Your task to perform on an android device: Search for "apple airpods pro" on amazon, select the first entry, add it to the cart, then select checkout. Image 0: 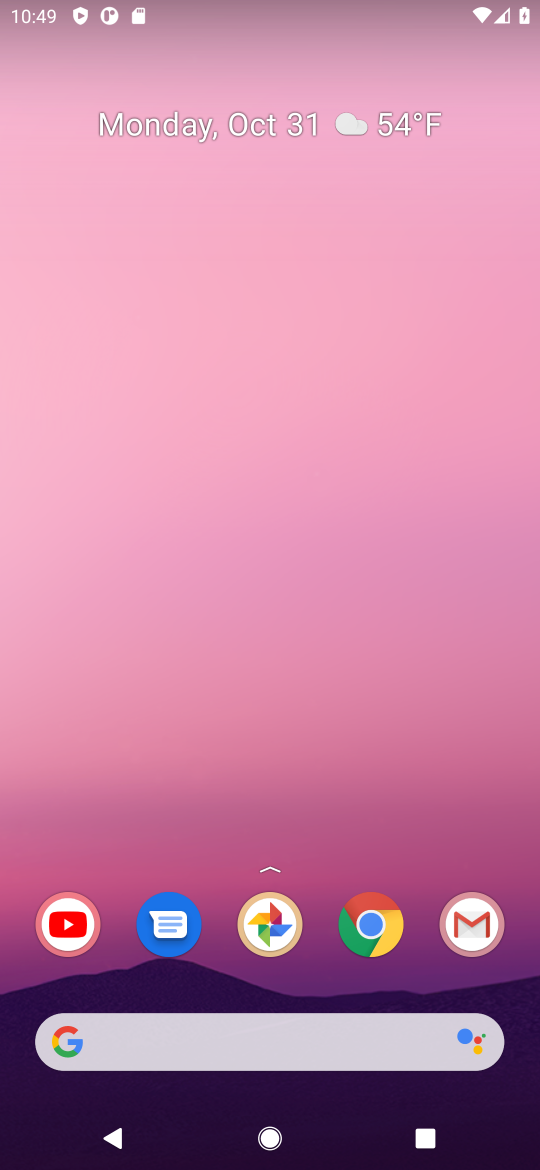
Step 0: click (383, 945)
Your task to perform on an android device: Search for "apple airpods pro" on amazon, select the first entry, add it to the cart, then select checkout. Image 1: 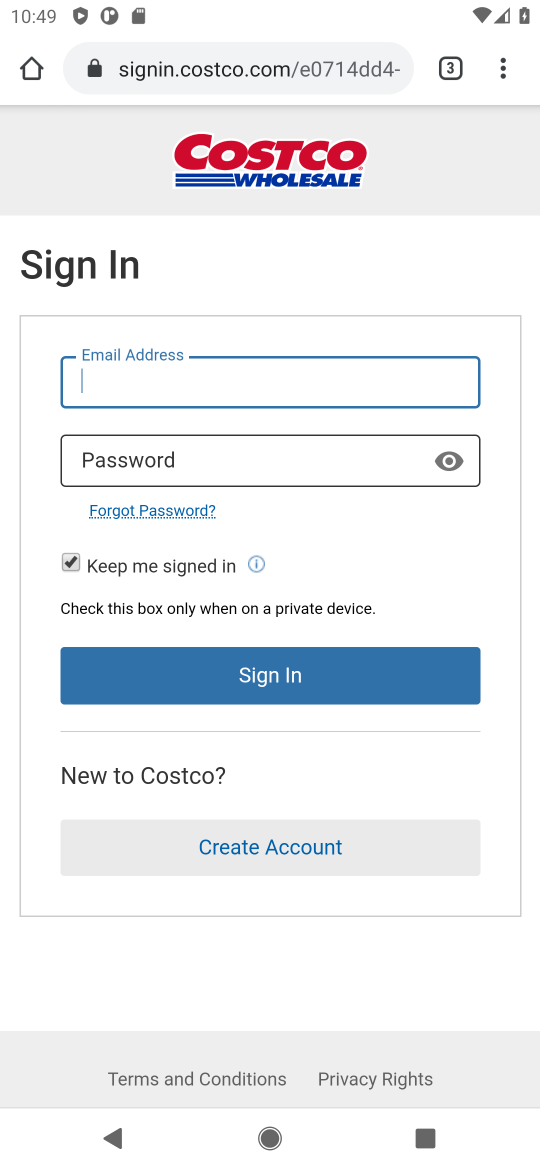
Step 1: click (282, 64)
Your task to perform on an android device: Search for "apple airpods pro" on amazon, select the first entry, add it to the cart, then select checkout. Image 2: 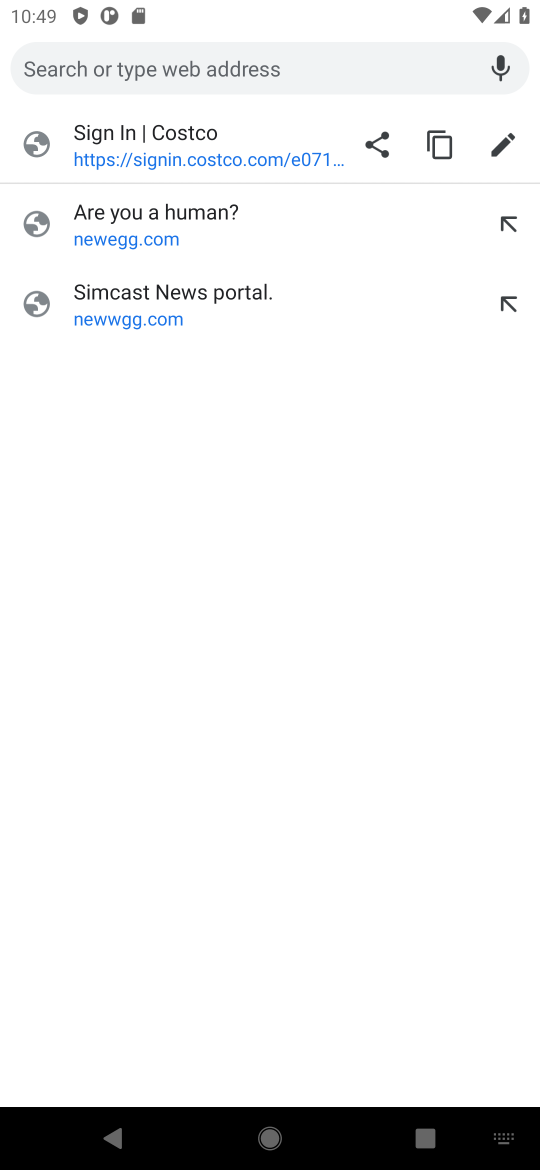
Step 2: type "amazone.com"
Your task to perform on an android device: Search for "apple airpods pro" on amazon, select the first entry, add it to the cart, then select checkout. Image 3: 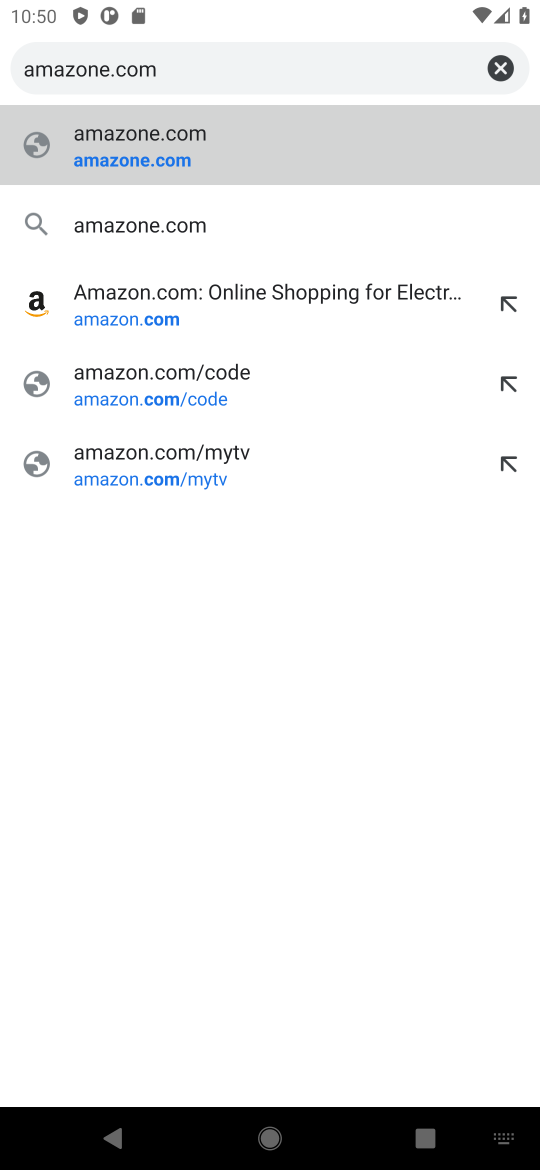
Step 3: click (142, 171)
Your task to perform on an android device: Search for "apple airpods pro" on amazon, select the first entry, add it to the cart, then select checkout. Image 4: 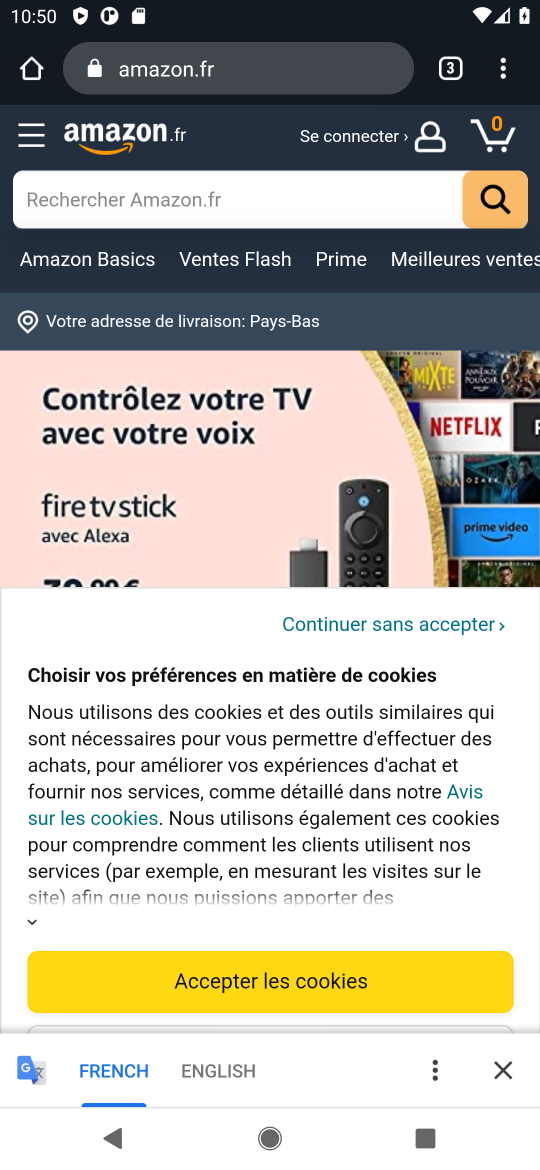
Step 4: click (244, 985)
Your task to perform on an android device: Search for "apple airpods pro" on amazon, select the first entry, add it to the cart, then select checkout. Image 5: 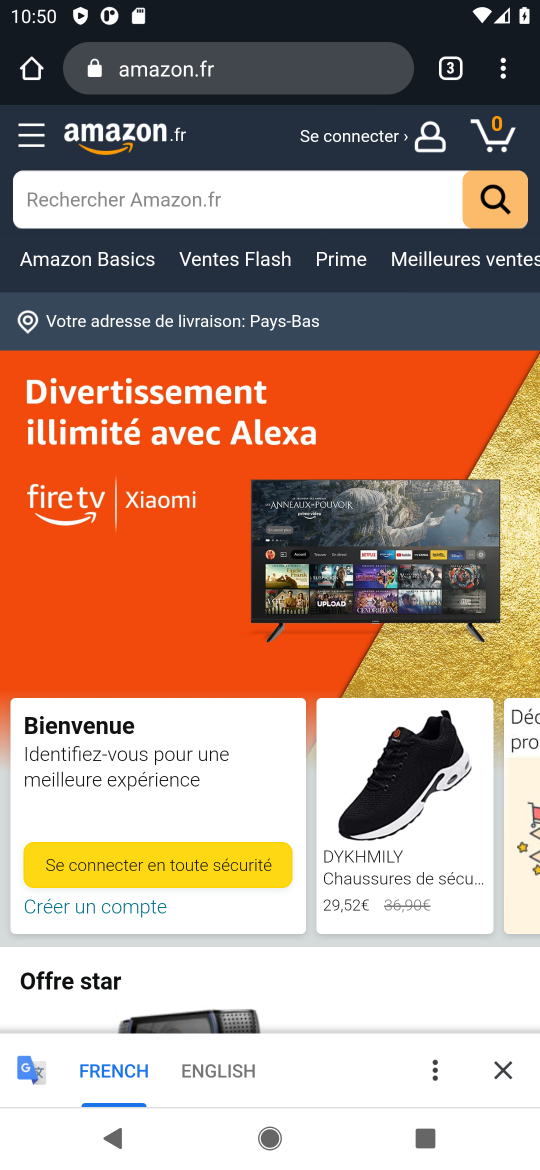
Step 5: click (196, 192)
Your task to perform on an android device: Search for "apple airpods pro" on amazon, select the first entry, add it to the cart, then select checkout. Image 6: 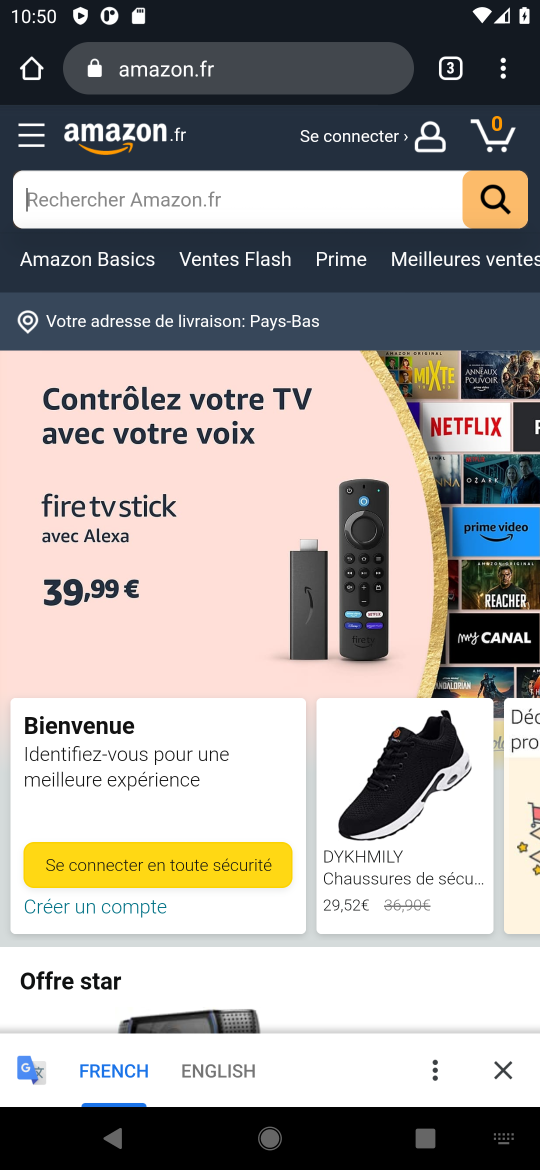
Step 6: type "apple airpods pro"
Your task to perform on an android device: Search for "apple airpods pro" on amazon, select the first entry, add it to the cart, then select checkout. Image 7: 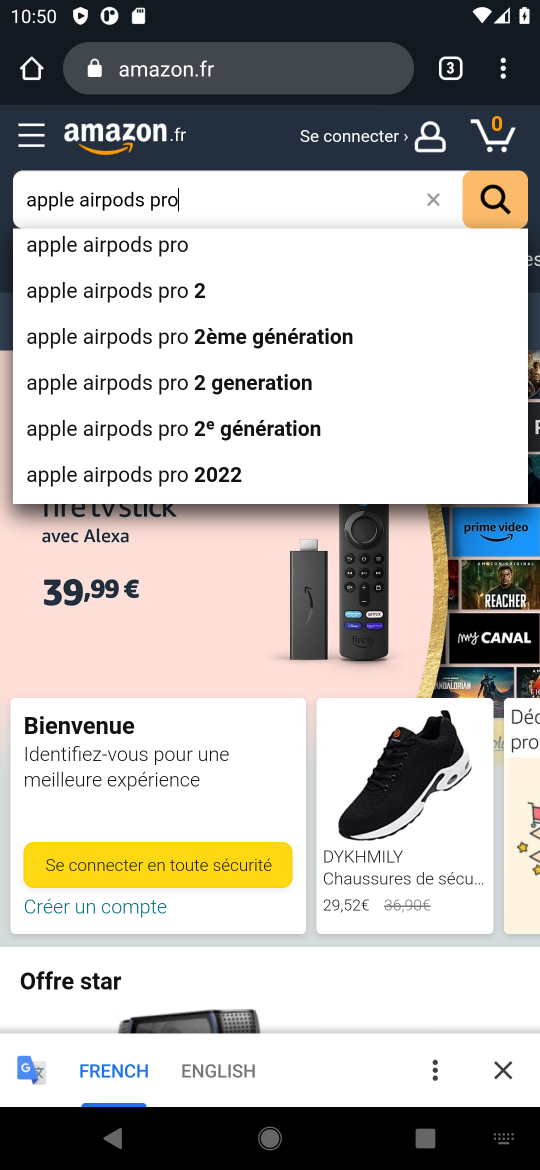
Step 7: type ""
Your task to perform on an android device: Search for "apple airpods pro" on amazon, select the first entry, add it to the cart, then select checkout. Image 8: 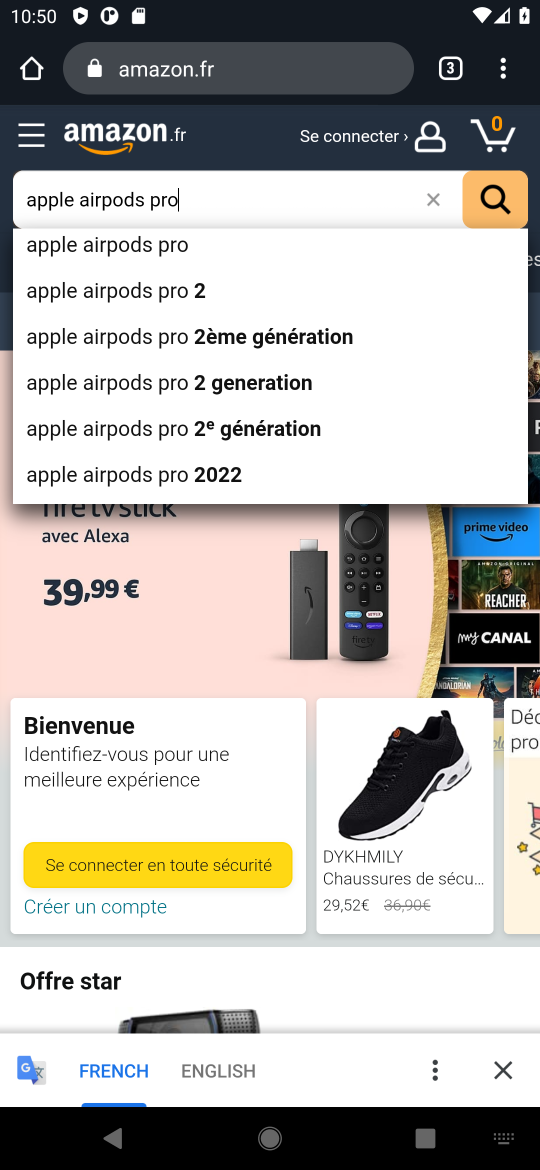
Step 8: click (89, 246)
Your task to perform on an android device: Search for "apple airpods pro" on amazon, select the first entry, add it to the cart, then select checkout. Image 9: 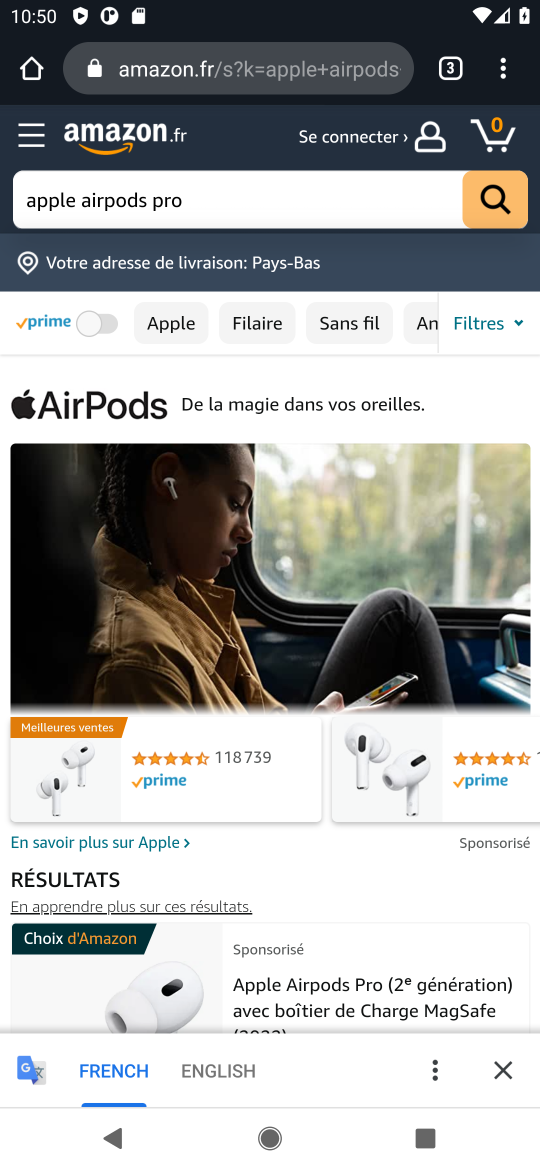
Step 9: drag from (150, 808) to (193, 425)
Your task to perform on an android device: Search for "apple airpods pro" on amazon, select the first entry, add it to the cart, then select checkout. Image 10: 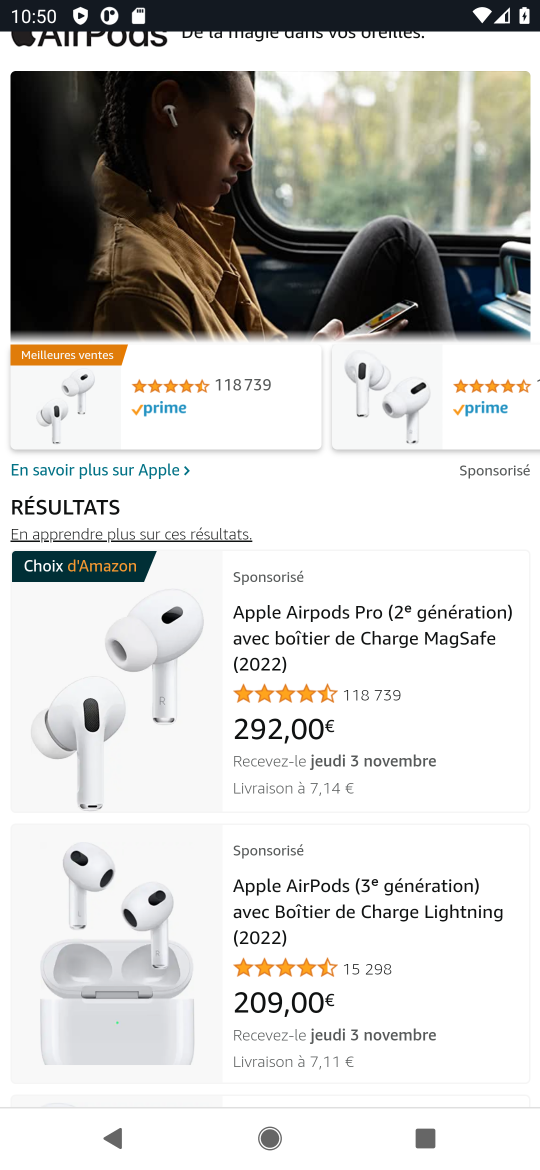
Step 10: click (210, 635)
Your task to perform on an android device: Search for "apple airpods pro" on amazon, select the first entry, add it to the cart, then select checkout. Image 11: 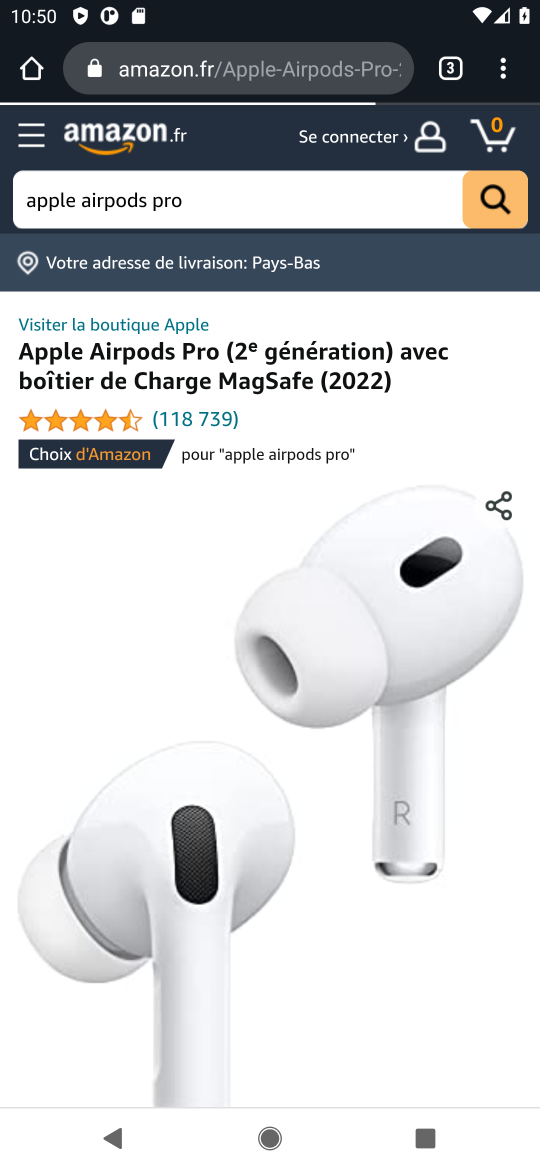
Step 11: drag from (266, 762) to (358, 270)
Your task to perform on an android device: Search for "apple airpods pro" on amazon, select the first entry, add it to the cart, then select checkout. Image 12: 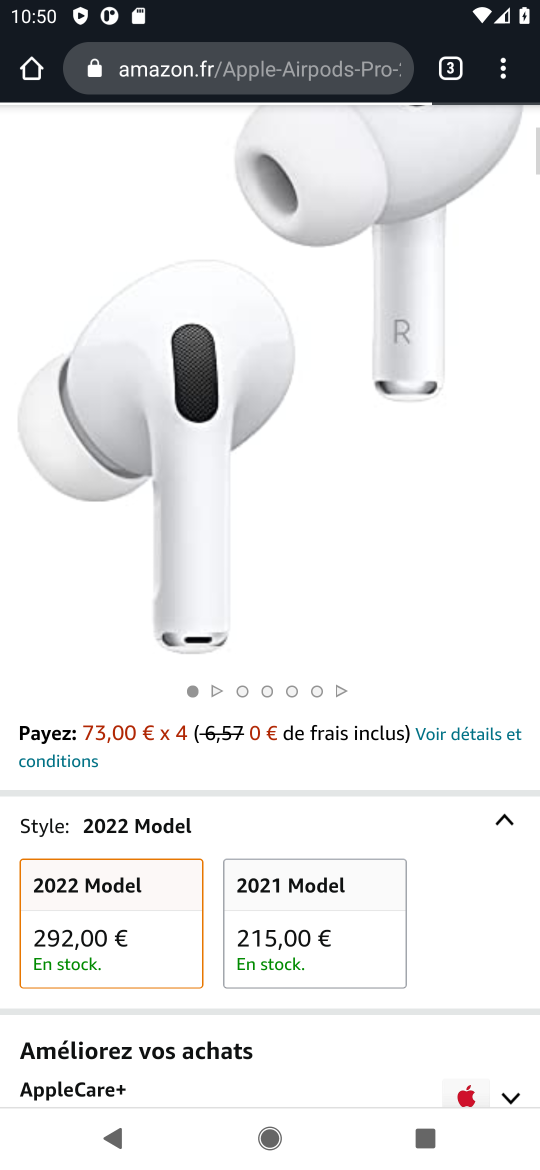
Step 12: drag from (279, 738) to (347, 345)
Your task to perform on an android device: Search for "apple airpods pro" on amazon, select the first entry, add it to the cart, then select checkout. Image 13: 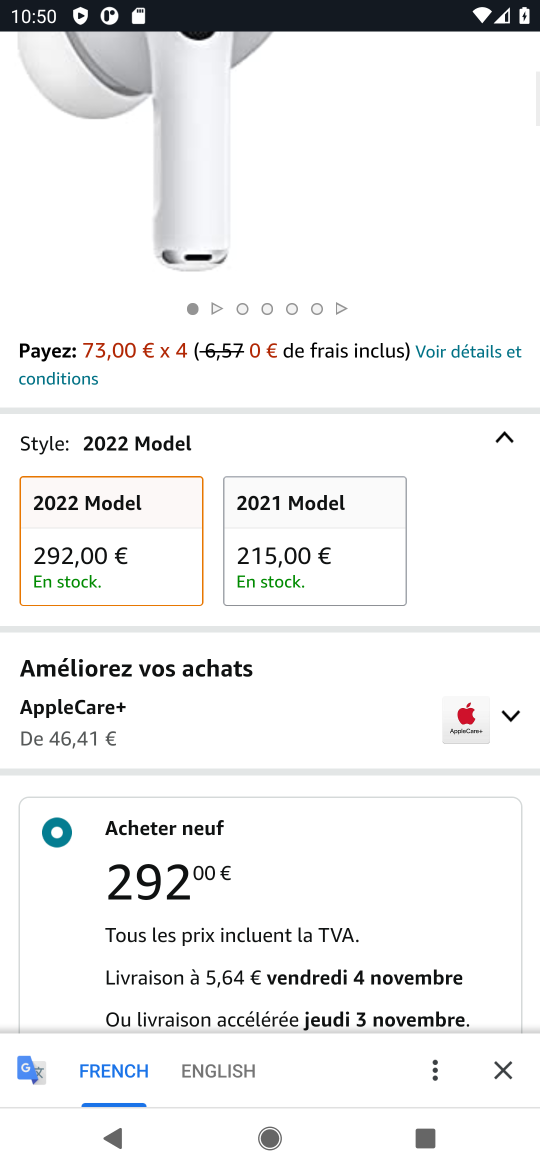
Step 13: drag from (282, 840) to (386, 225)
Your task to perform on an android device: Search for "apple airpods pro" on amazon, select the first entry, add it to the cart, then select checkout. Image 14: 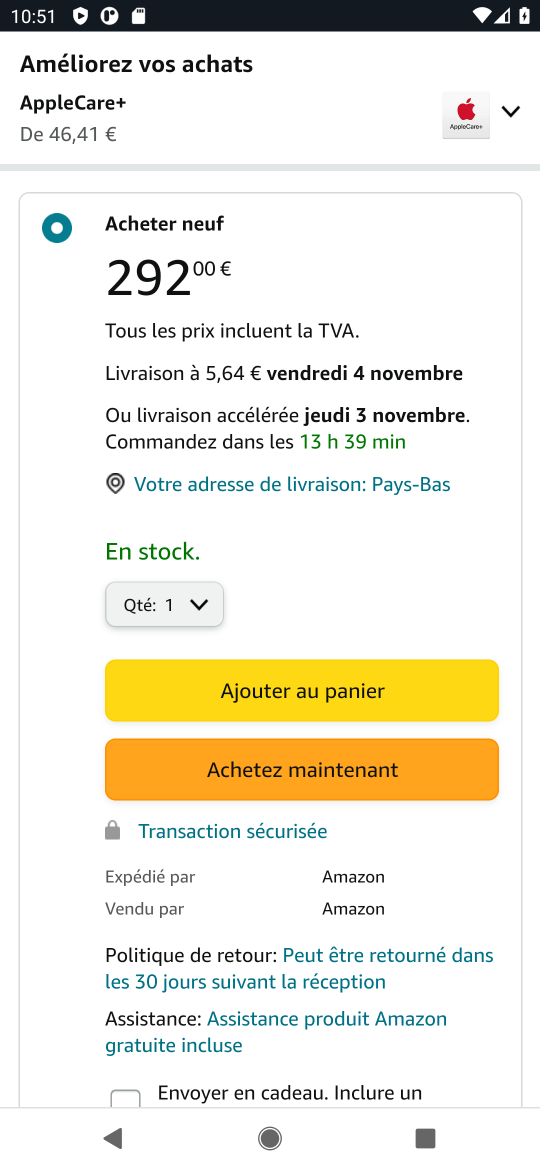
Step 14: drag from (307, 935) to (382, 542)
Your task to perform on an android device: Search for "apple airpods pro" on amazon, select the first entry, add it to the cart, then select checkout. Image 15: 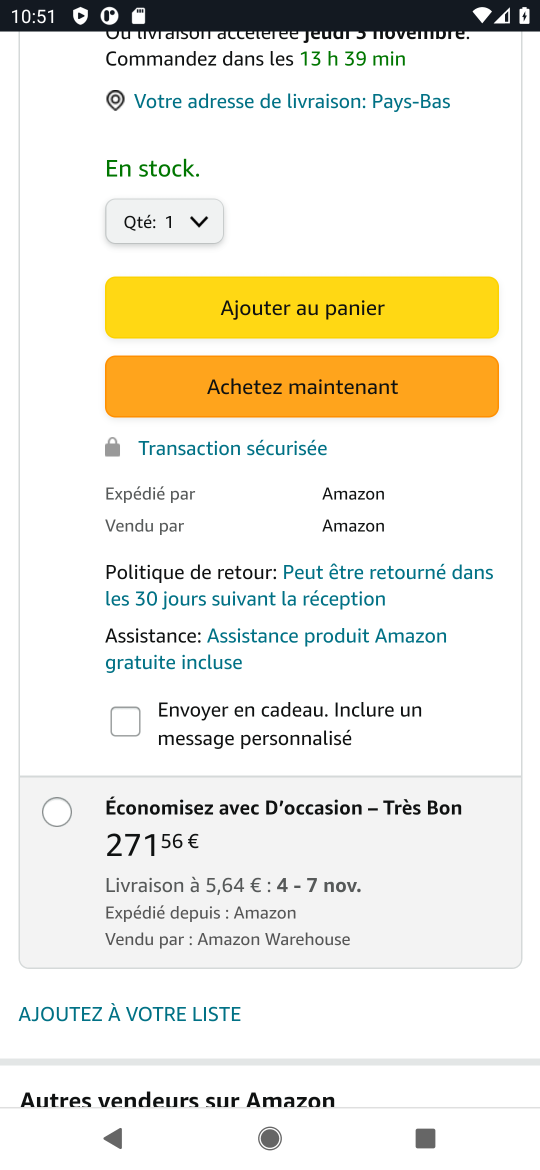
Step 15: drag from (232, 904) to (285, 967)
Your task to perform on an android device: Search for "apple airpods pro" on amazon, select the first entry, add it to the cart, then select checkout. Image 16: 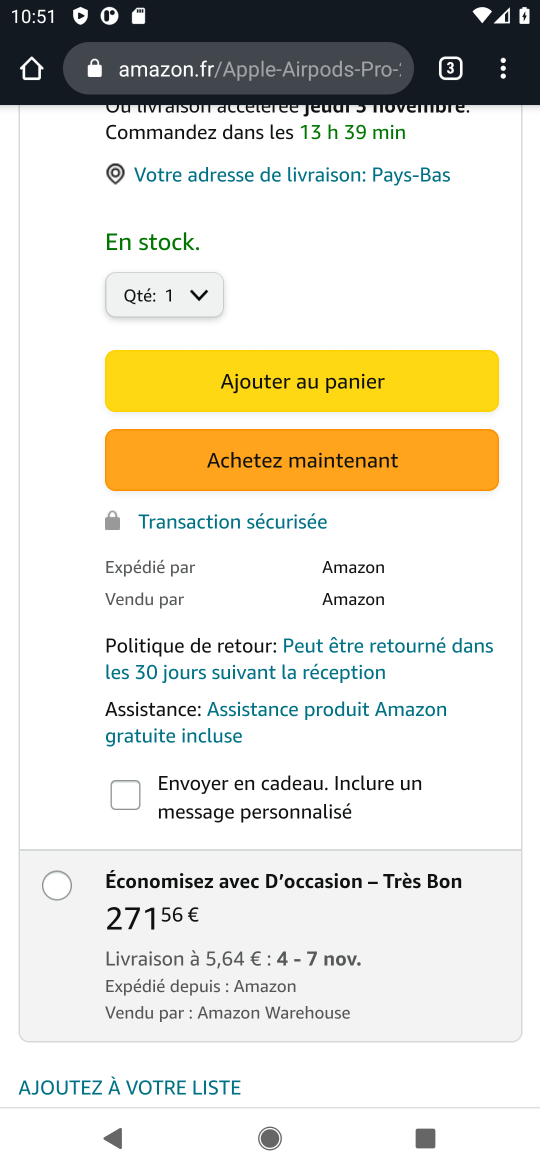
Step 16: click (334, 393)
Your task to perform on an android device: Search for "apple airpods pro" on amazon, select the first entry, add it to the cart, then select checkout. Image 17: 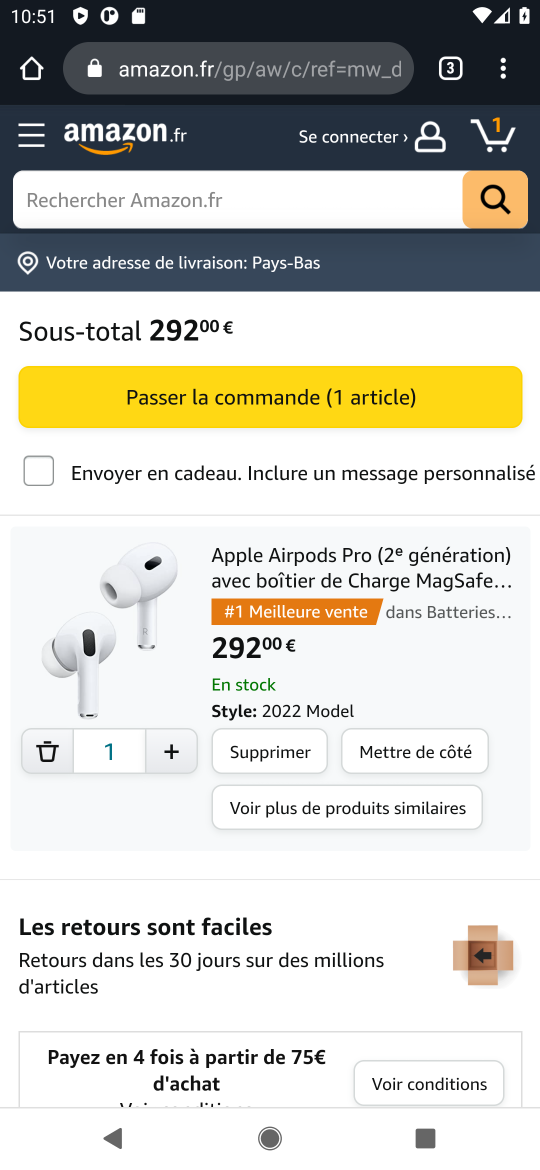
Step 17: click (501, 139)
Your task to perform on an android device: Search for "apple airpods pro" on amazon, select the first entry, add it to the cart, then select checkout. Image 18: 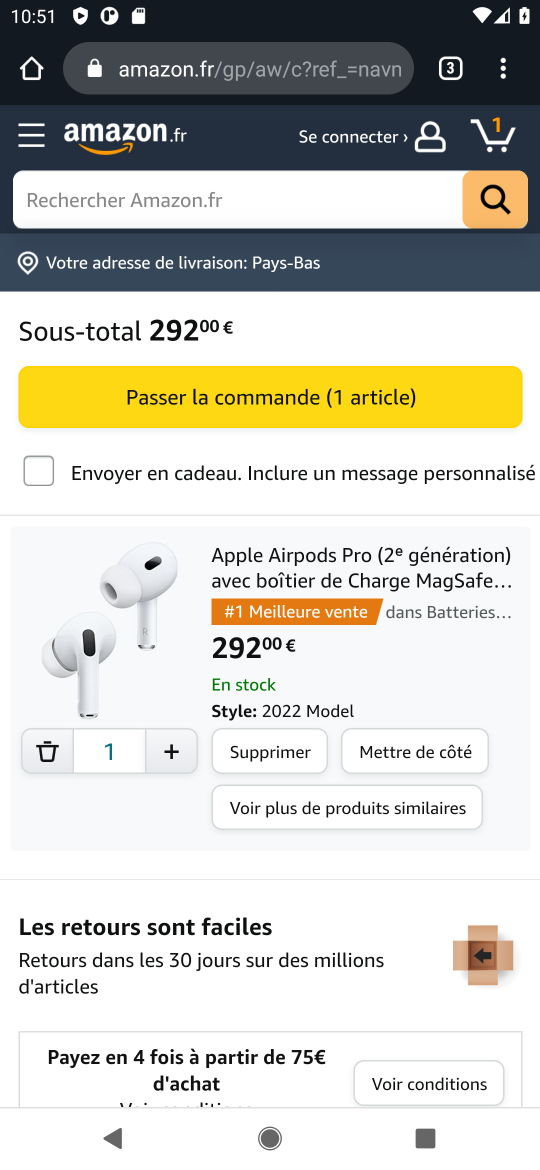
Step 18: drag from (299, 722) to (291, 888)
Your task to perform on an android device: Search for "apple airpods pro" on amazon, select the first entry, add it to the cart, then select checkout. Image 19: 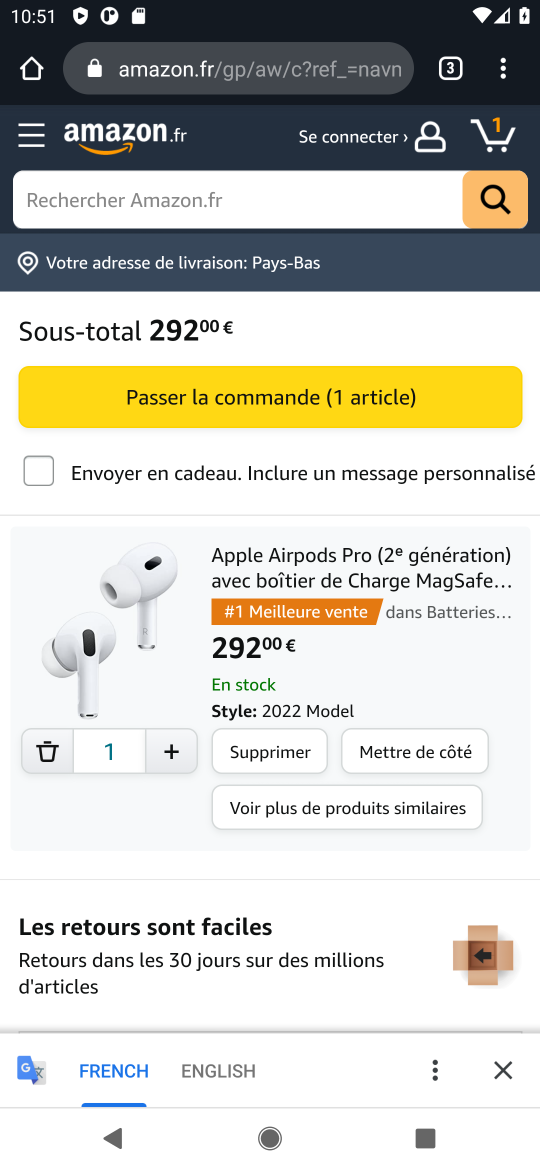
Step 19: click (352, 410)
Your task to perform on an android device: Search for "apple airpods pro" on amazon, select the first entry, add it to the cart, then select checkout. Image 20: 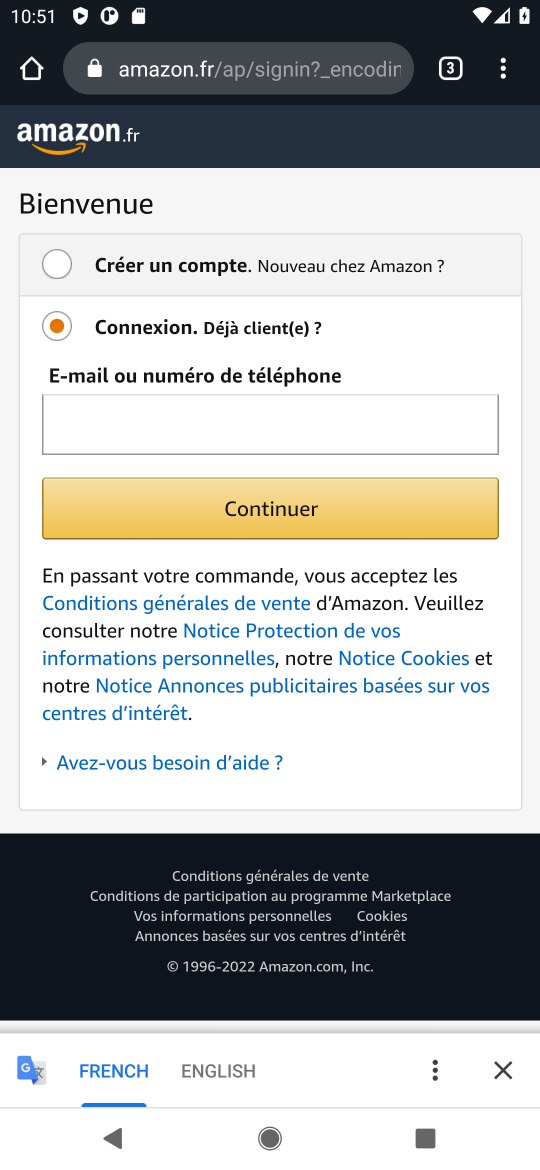
Step 20: task complete